Your task to perform on an android device: find snoozed emails in the gmail app Image 0: 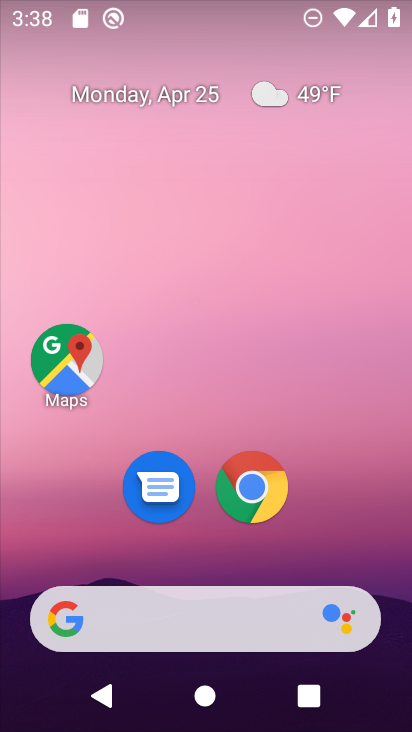
Step 0: drag from (396, 589) to (409, 11)
Your task to perform on an android device: find snoozed emails in the gmail app Image 1: 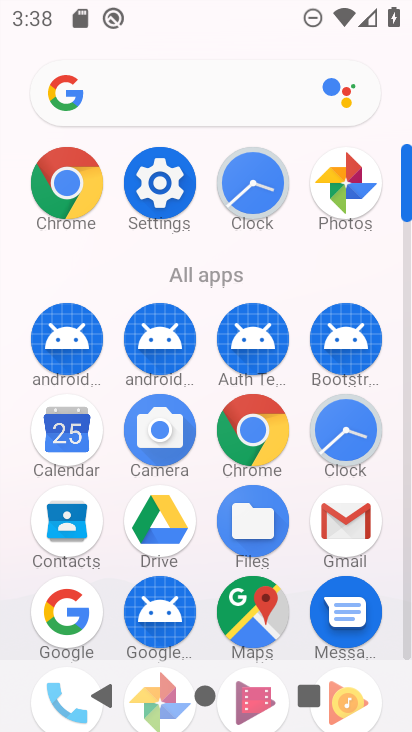
Step 1: click (340, 528)
Your task to perform on an android device: find snoozed emails in the gmail app Image 2: 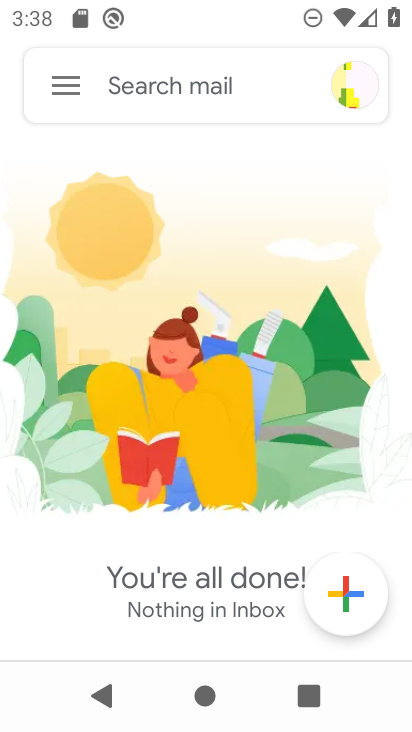
Step 2: click (58, 90)
Your task to perform on an android device: find snoozed emails in the gmail app Image 3: 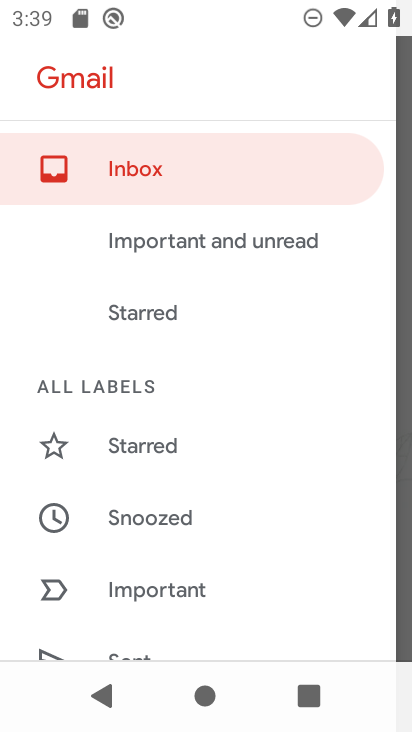
Step 3: click (146, 525)
Your task to perform on an android device: find snoozed emails in the gmail app Image 4: 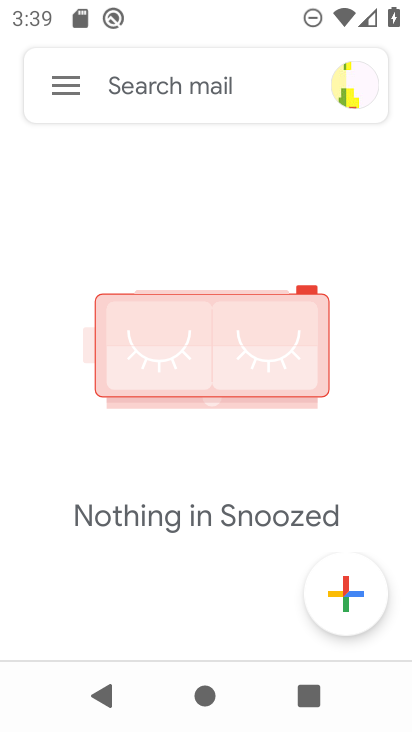
Step 4: task complete